Your task to perform on an android device: open app "Facebook" (install if not already installed), go to login, and select forgot password Image 0: 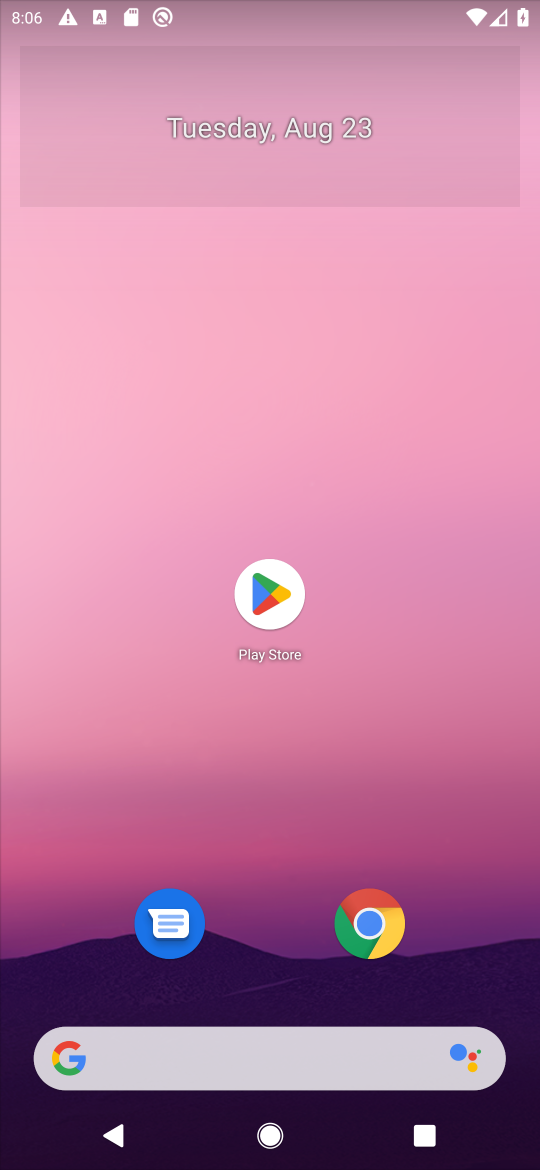
Step 0: click (273, 598)
Your task to perform on an android device: open app "Facebook" (install if not already installed), go to login, and select forgot password Image 1: 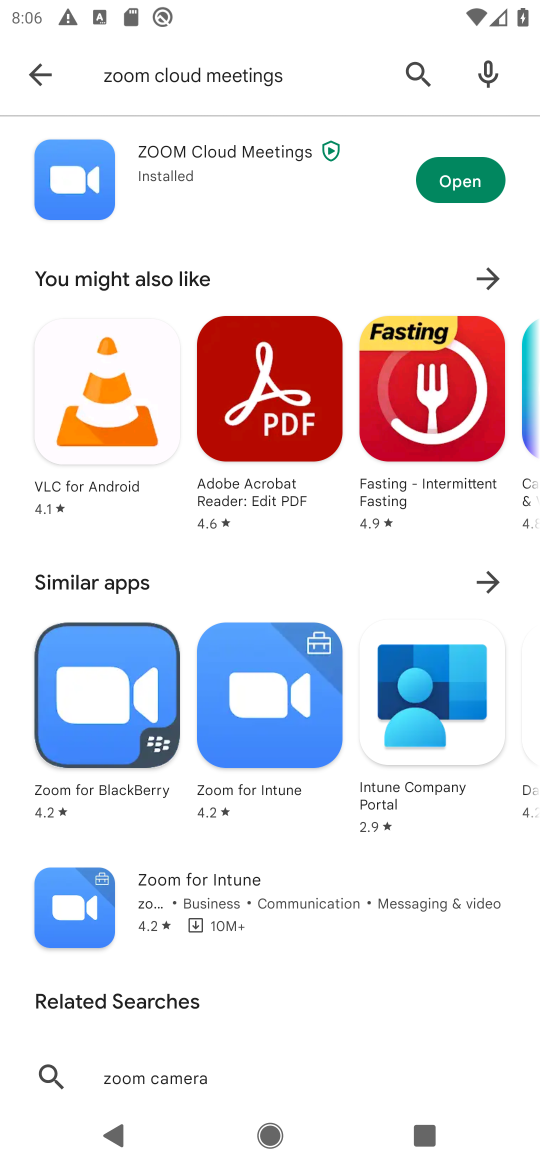
Step 1: click (416, 70)
Your task to perform on an android device: open app "Facebook" (install if not already installed), go to login, and select forgot password Image 2: 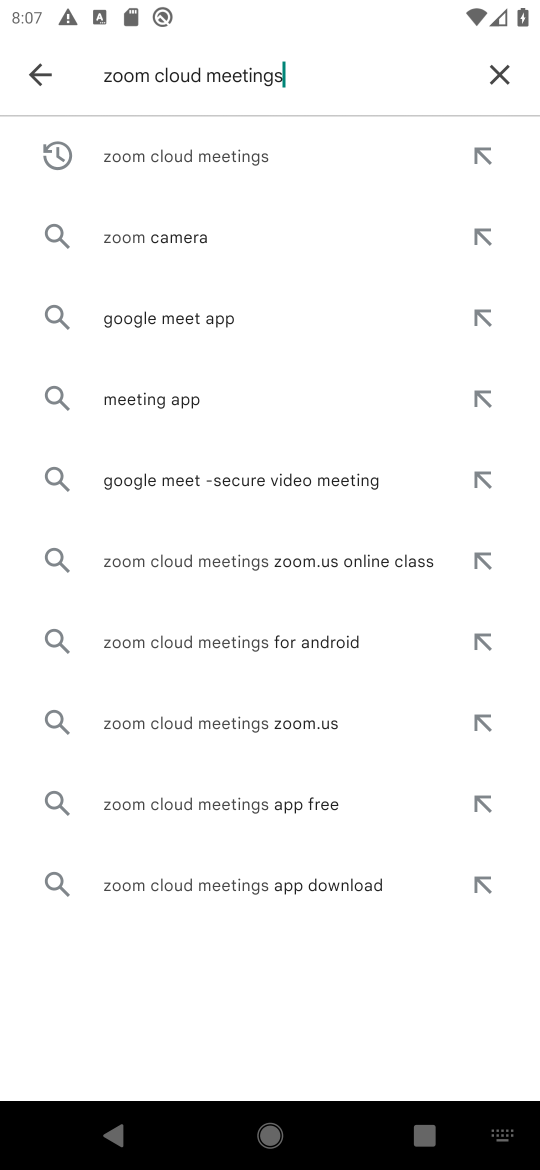
Step 2: click (499, 73)
Your task to perform on an android device: open app "Facebook" (install if not already installed), go to login, and select forgot password Image 3: 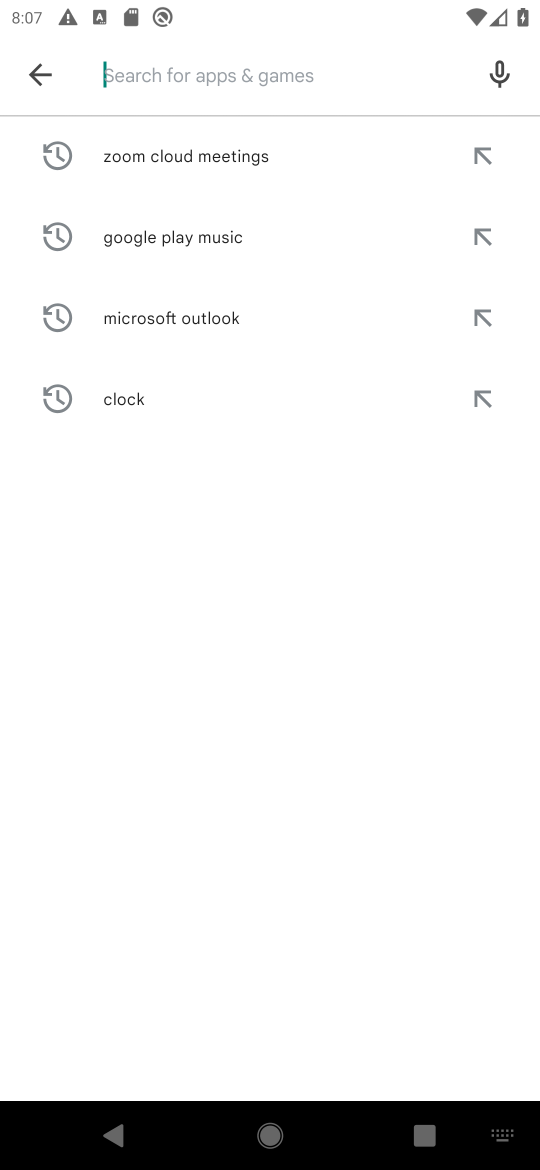
Step 3: type "Facebook"
Your task to perform on an android device: open app "Facebook" (install if not already installed), go to login, and select forgot password Image 4: 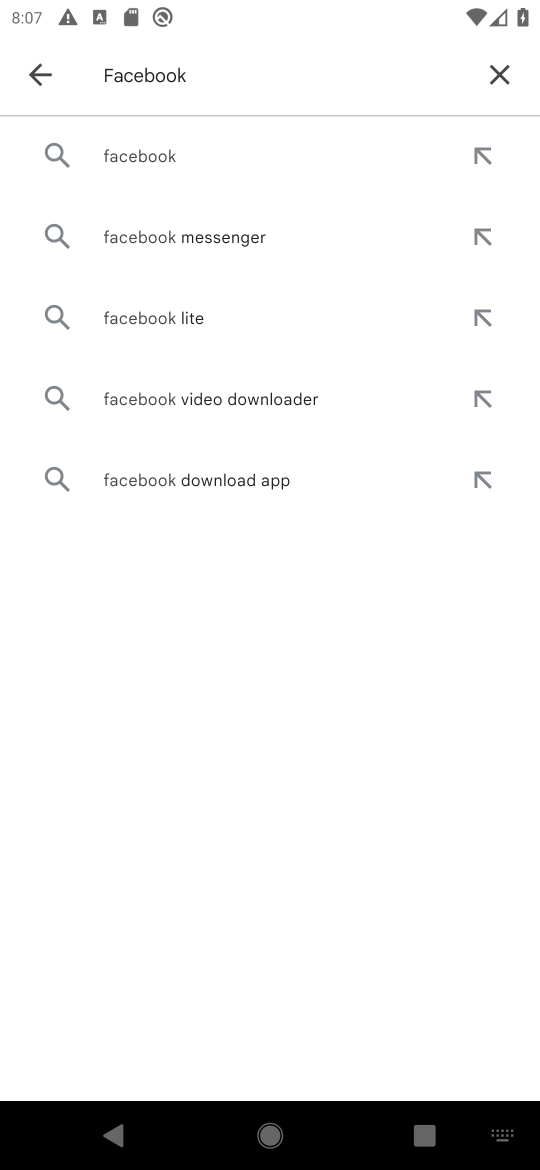
Step 4: click (127, 161)
Your task to perform on an android device: open app "Facebook" (install if not already installed), go to login, and select forgot password Image 5: 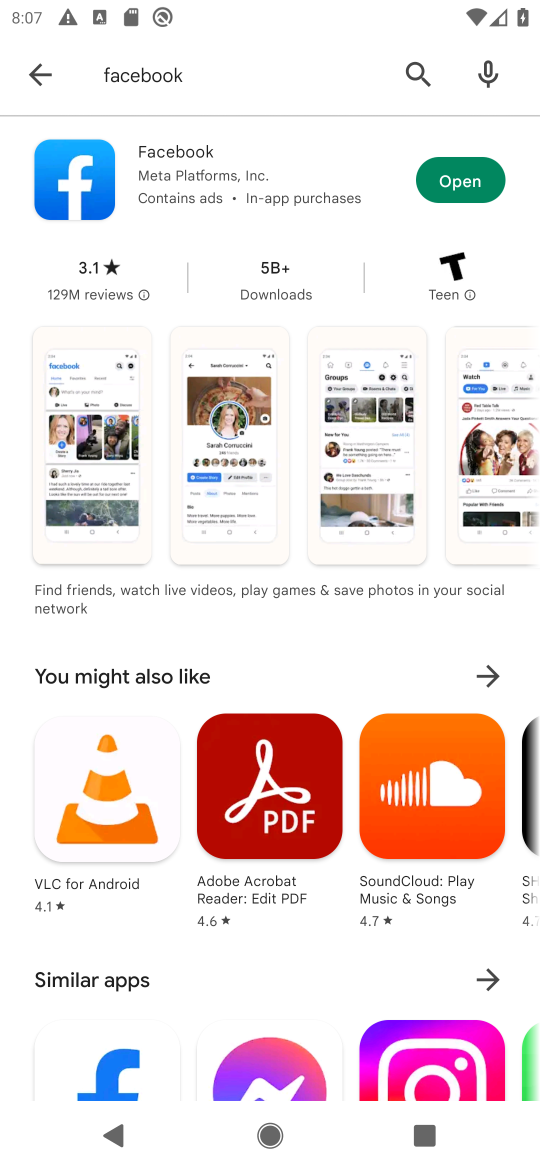
Step 5: click (452, 175)
Your task to perform on an android device: open app "Facebook" (install if not already installed), go to login, and select forgot password Image 6: 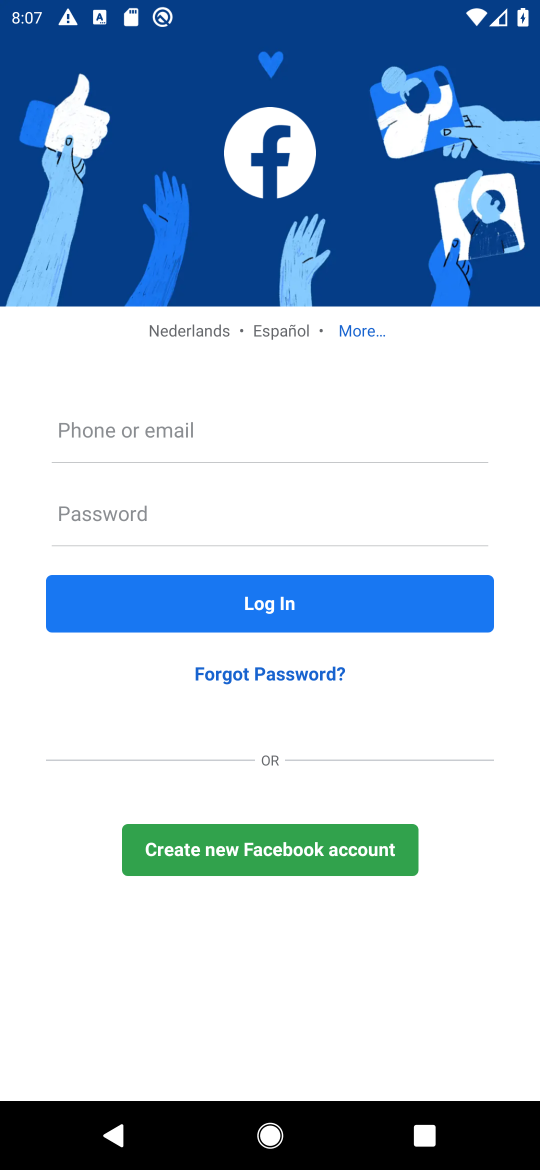
Step 6: click (283, 681)
Your task to perform on an android device: open app "Facebook" (install if not already installed), go to login, and select forgot password Image 7: 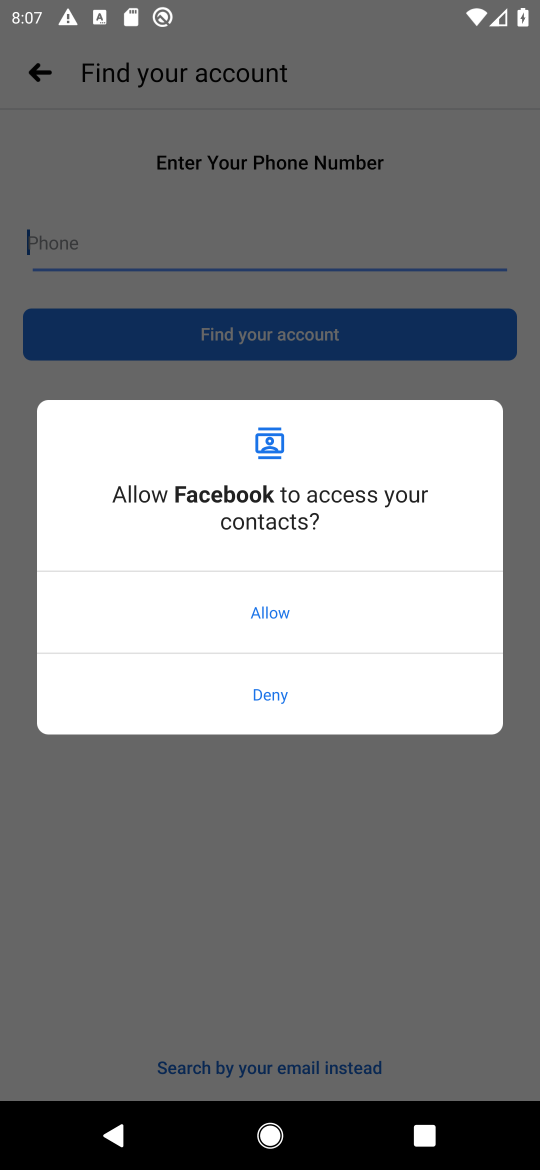
Step 7: click (322, 623)
Your task to perform on an android device: open app "Facebook" (install if not already installed), go to login, and select forgot password Image 8: 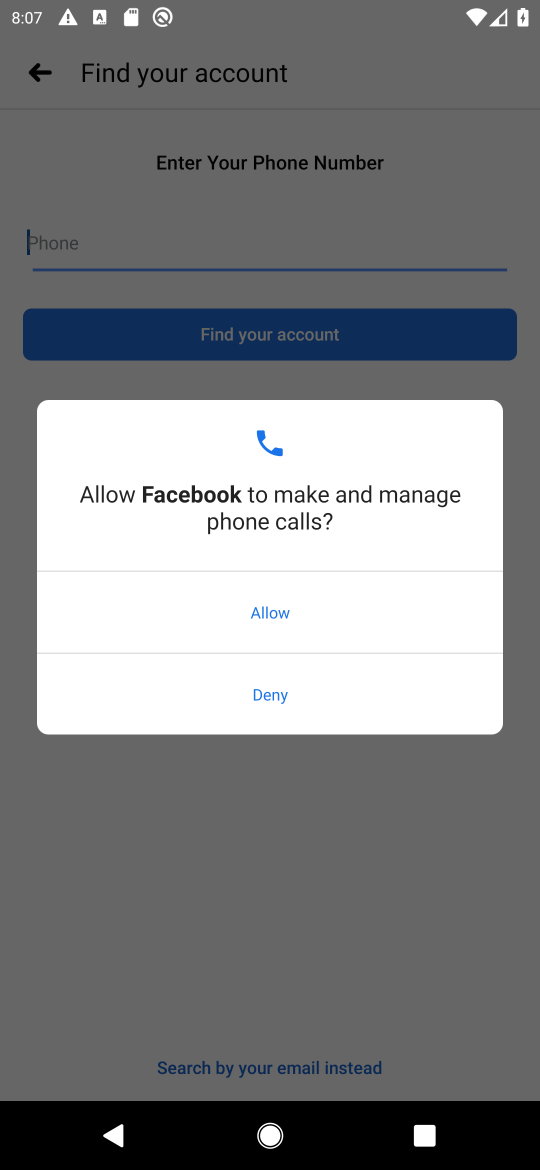
Step 8: task complete